Your task to perform on an android device: Google the capital of Panama Image 0: 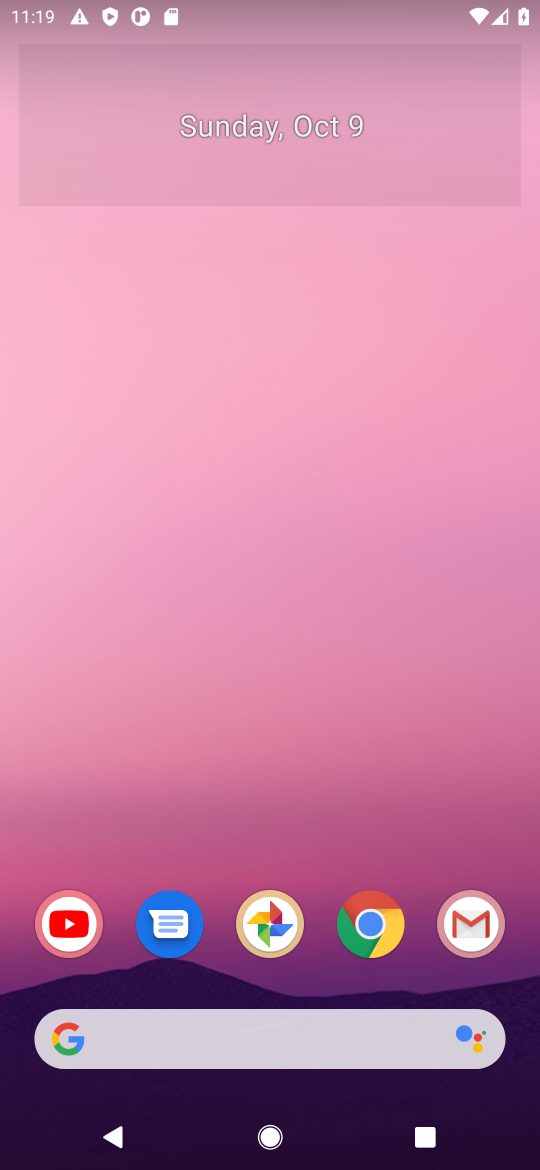
Step 0: drag from (201, 799) to (38, 112)
Your task to perform on an android device: Google the capital of Panama Image 1: 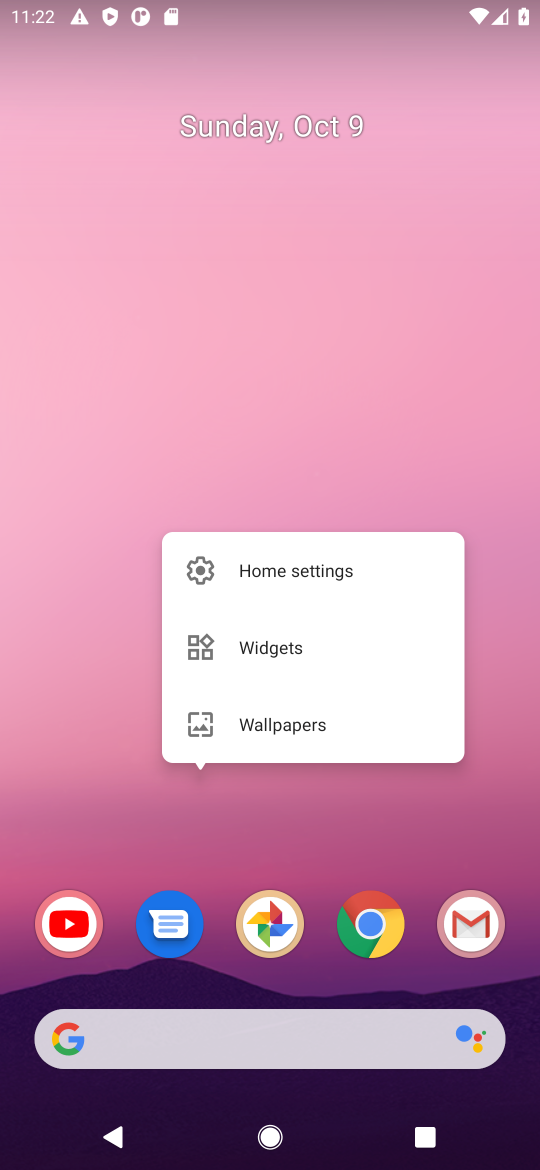
Step 1: click (137, 725)
Your task to perform on an android device: Google the capital of Panama Image 2: 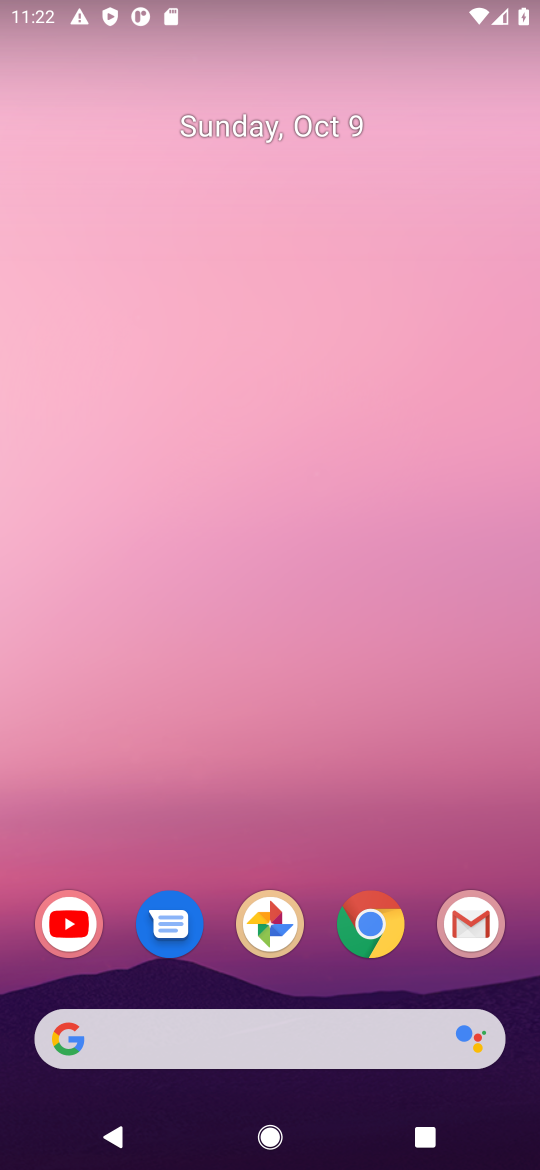
Step 2: drag from (199, 975) to (382, 33)
Your task to perform on an android device: Google the capital of Panama Image 3: 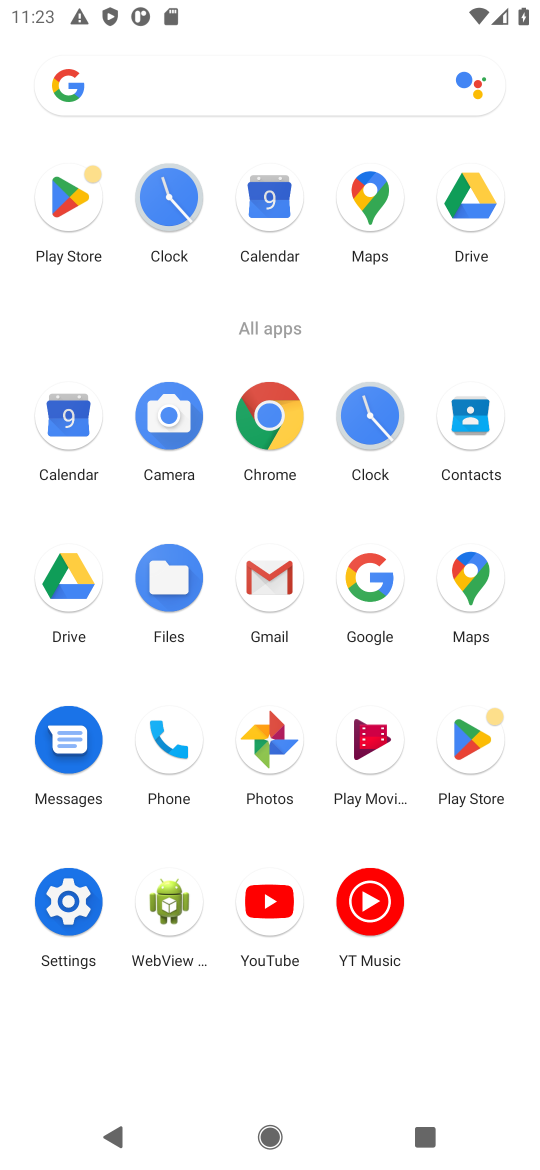
Step 3: click (288, 438)
Your task to perform on an android device: Google the capital of Panama Image 4: 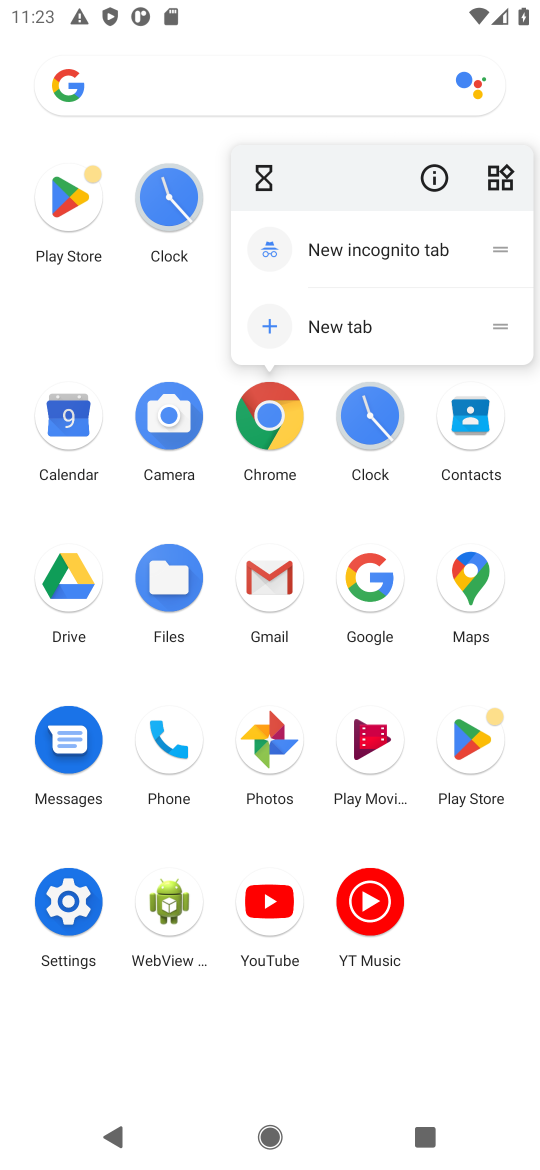
Step 4: click (280, 430)
Your task to perform on an android device: Google the capital of Panama Image 5: 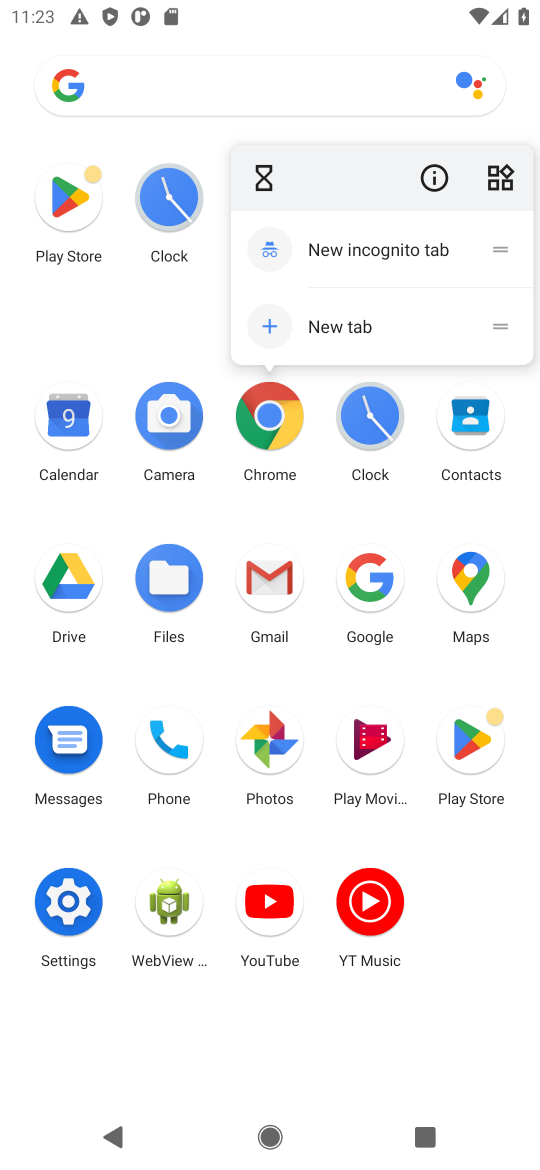
Step 5: click (271, 423)
Your task to perform on an android device: Google the capital of Panama Image 6: 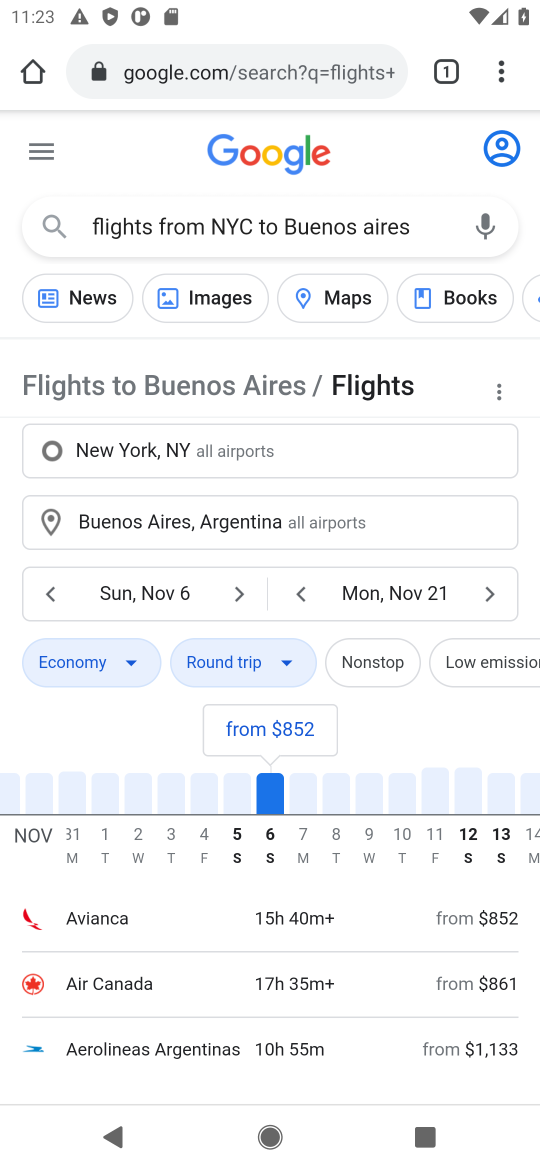
Step 6: click (171, 173)
Your task to perform on an android device: Google the capital of Panama Image 7: 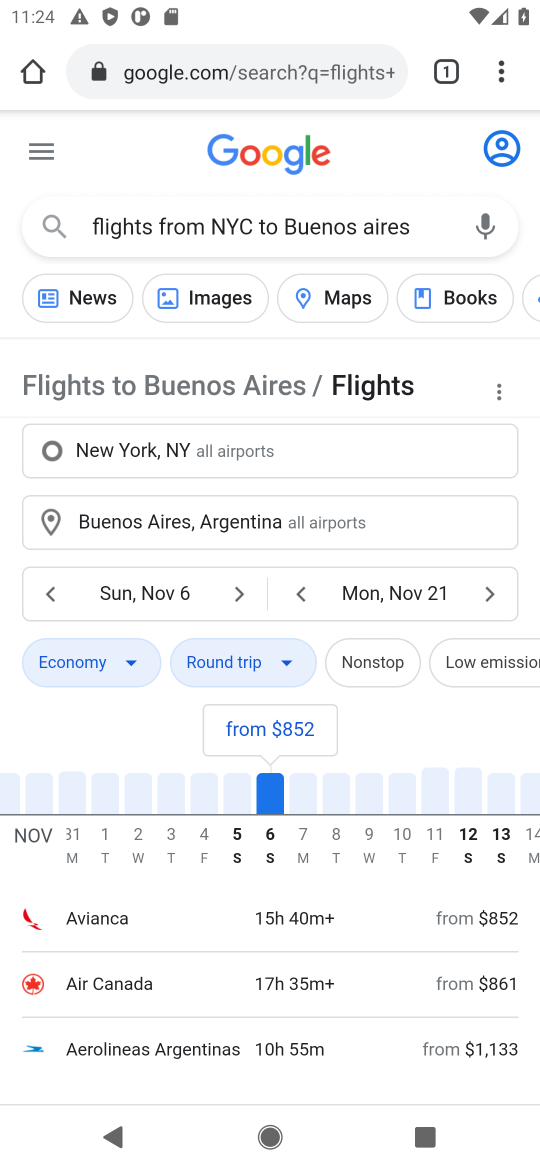
Step 7: click (219, 231)
Your task to perform on an android device: Google the capital of Panama Image 8: 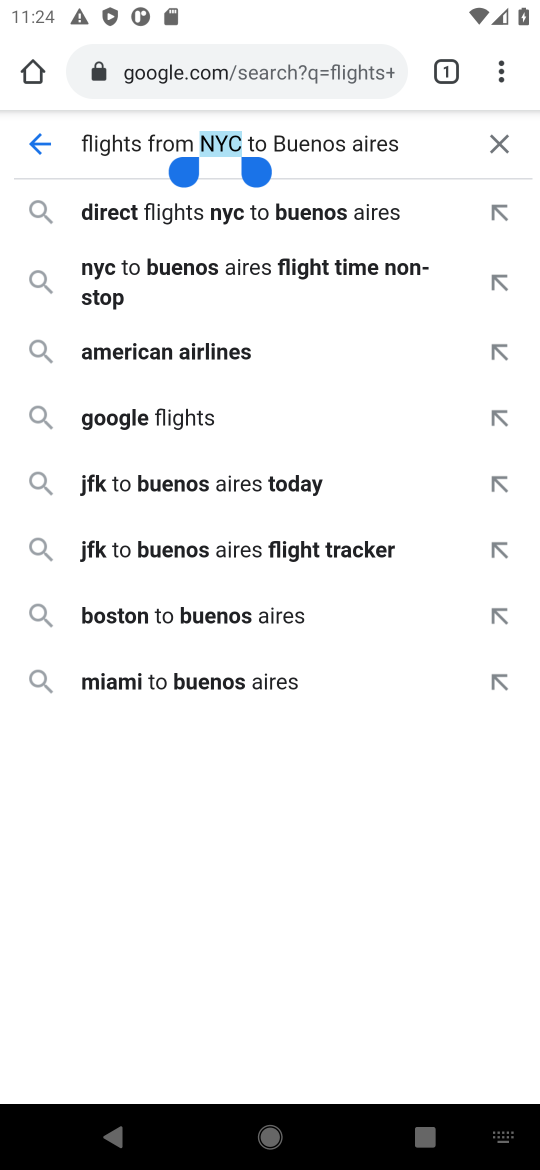
Step 8: click (219, 231)
Your task to perform on an android device: Google the capital of Panama Image 9: 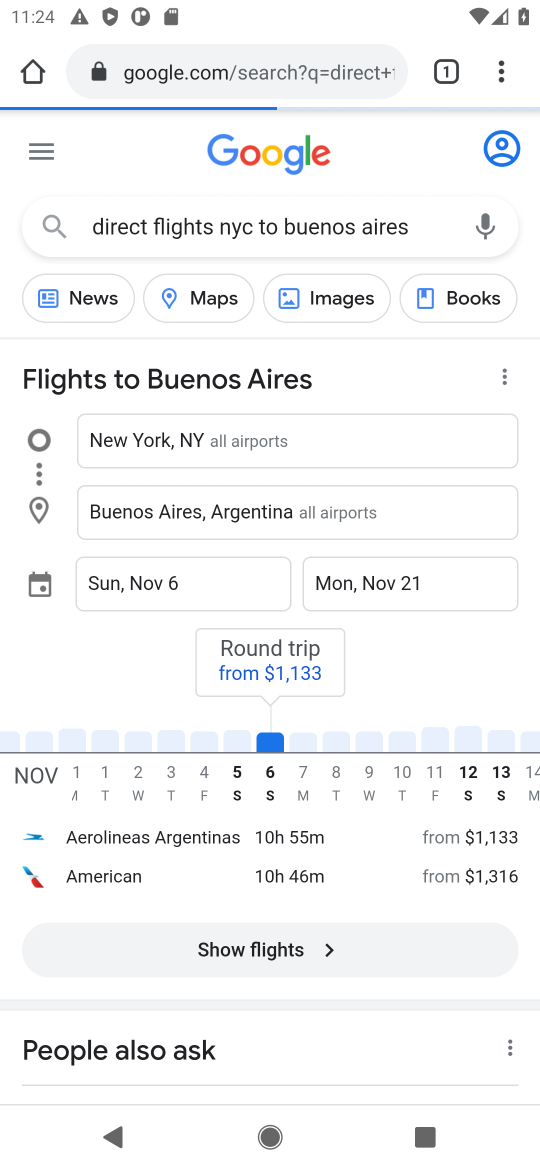
Step 9: click (255, 78)
Your task to perform on an android device: Google the capital of Panama Image 10: 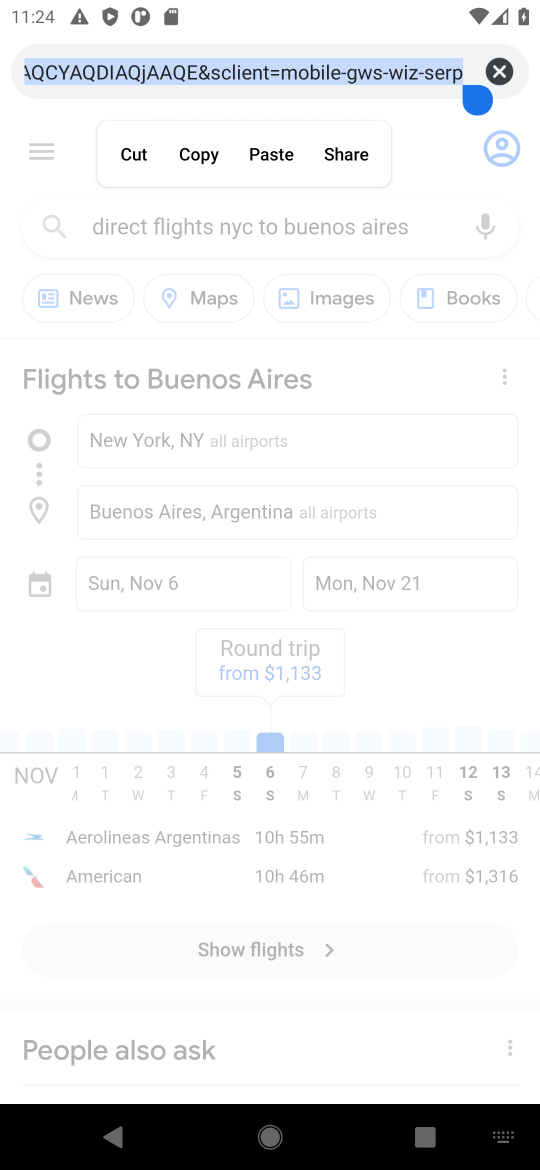
Step 10: click (498, 72)
Your task to perform on an android device: Google the capital of Panama Image 11: 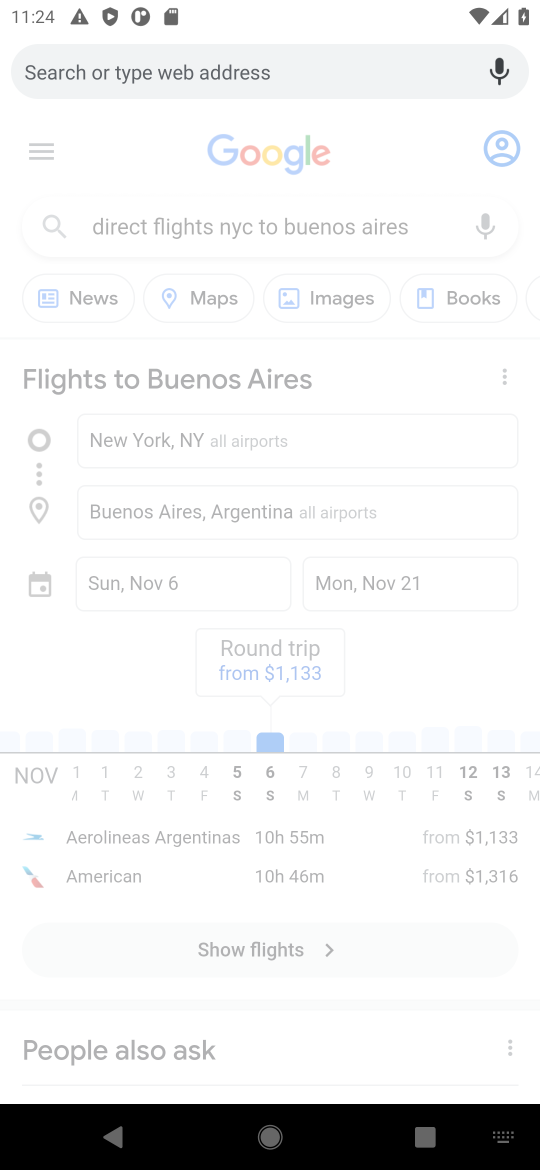
Step 11: type "Google the capital of Panama"
Your task to perform on an android device: Google the capital of Panama Image 12: 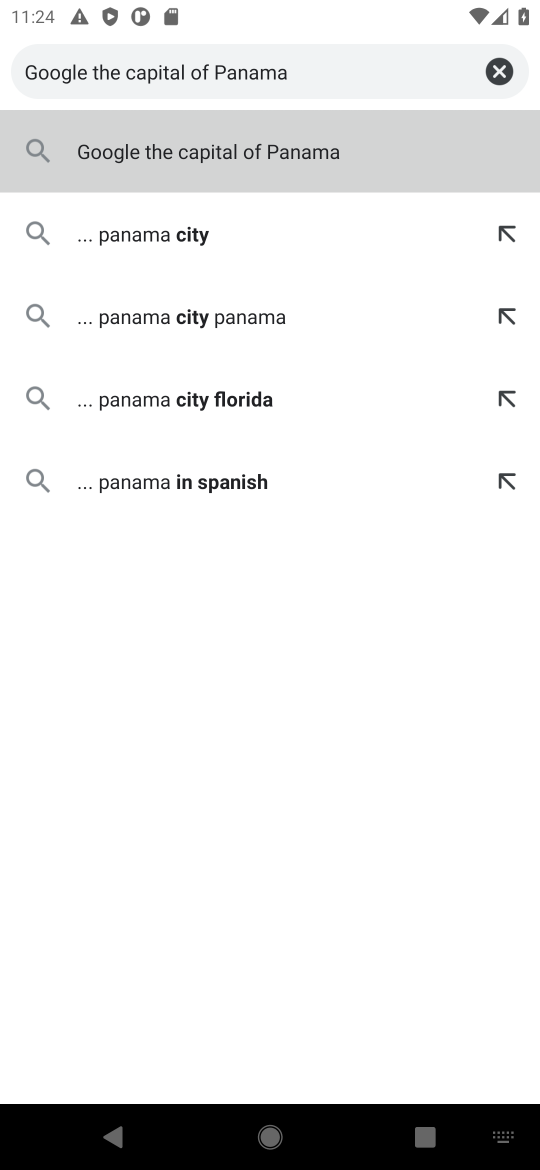
Step 12: press enter
Your task to perform on an android device: Google the capital of Panama Image 13: 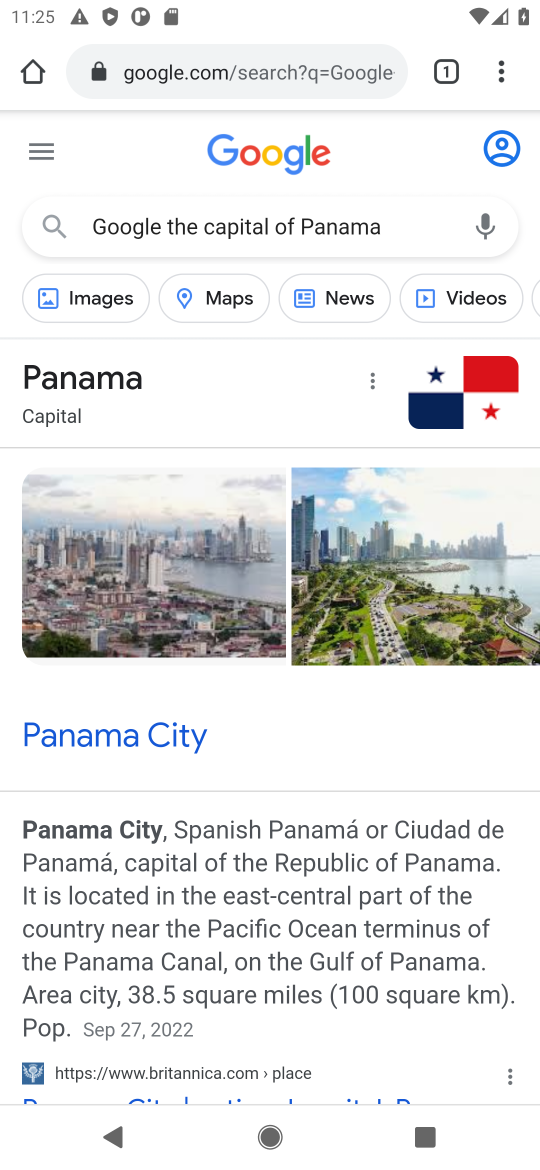
Step 13: task complete